Your task to perform on an android device: Check the news Image 0: 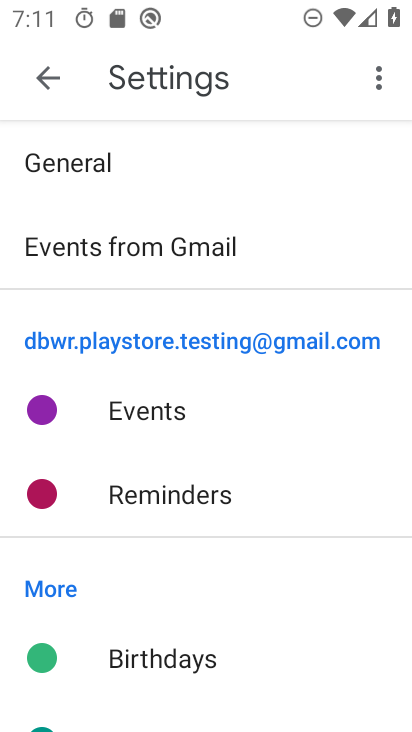
Step 0: press home button
Your task to perform on an android device: Check the news Image 1: 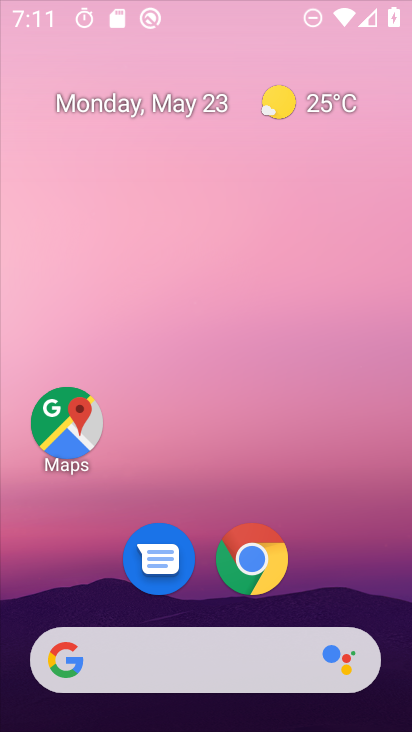
Step 1: drag from (395, 671) to (276, 54)
Your task to perform on an android device: Check the news Image 2: 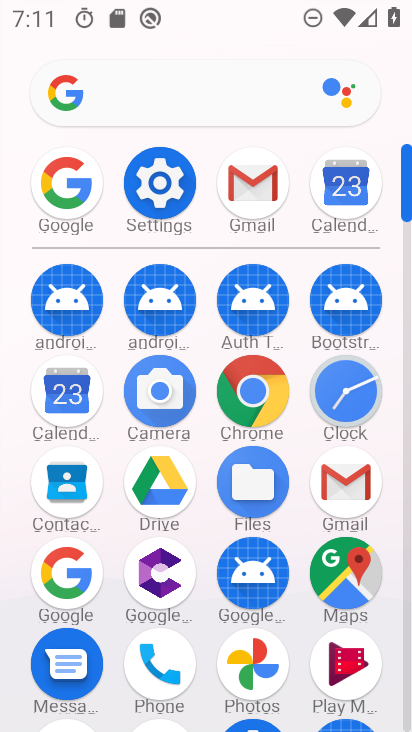
Step 2: click (76, 594)
Your task to perform on an android device: Check the news Image 3: 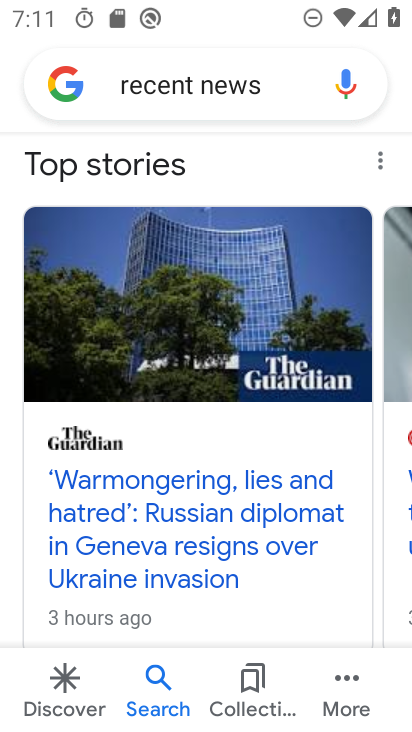
Step 3: press back button
Your task to perform on an android device: Check the news Image 4: 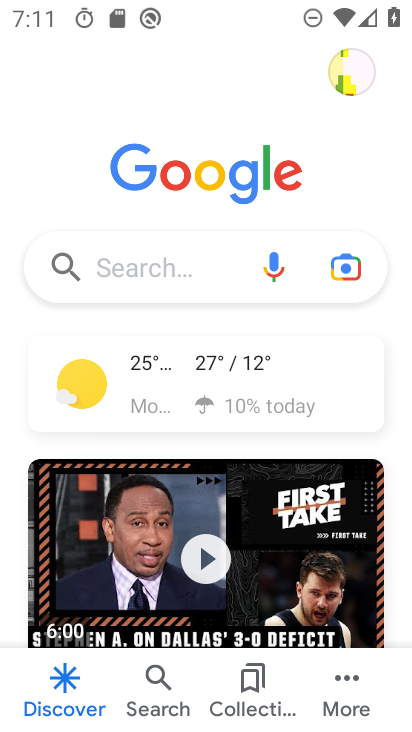
Step 4: click (113, 252)
Your task to perform on an android device: Check the news Image 5: 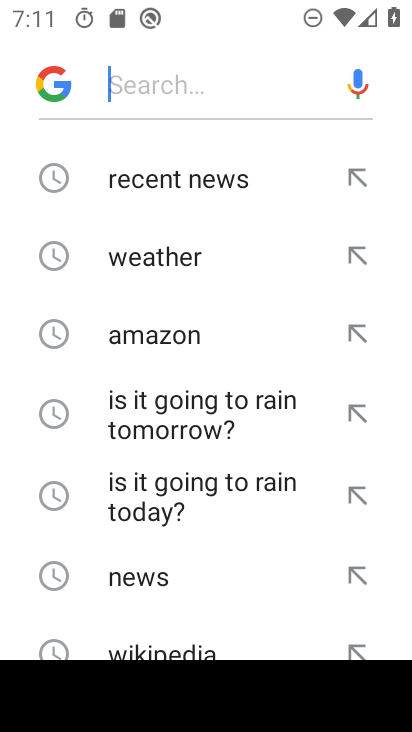
Step 5: click (166, 583)
Your task to perform on an android device: Check the news Image 6: 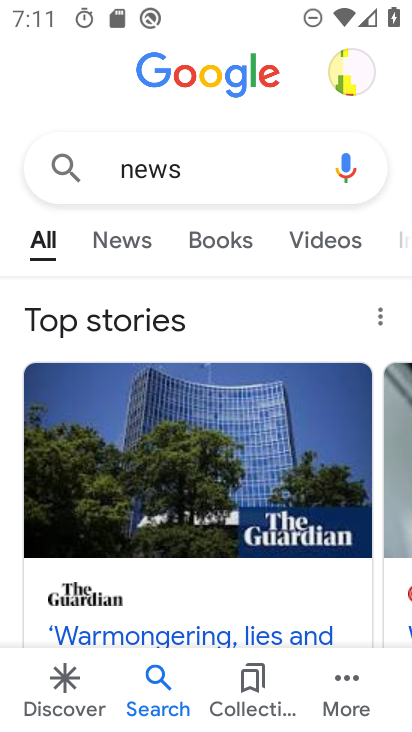
Step 6: task complete